Your task to perform on an android device: Open maps Image 0: 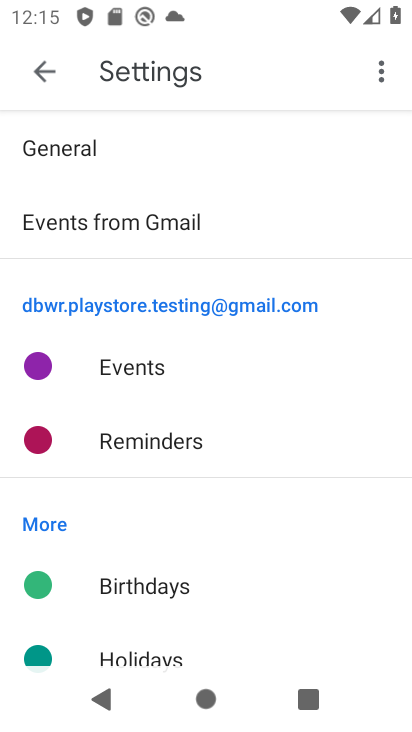
Step 0: press home button
Your task to perform on an android device: Open maps Image 1: 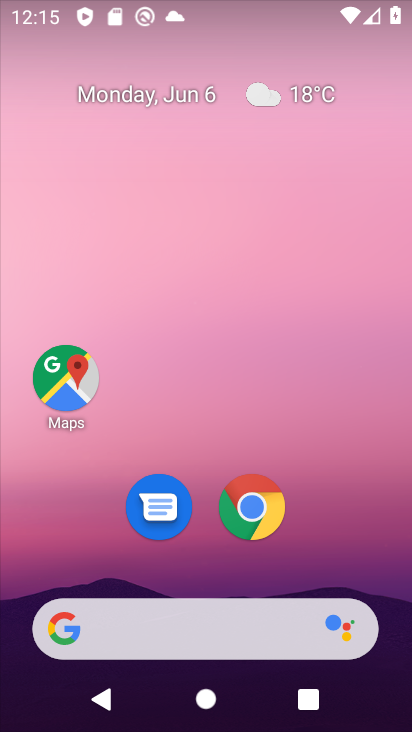
Step 1: click (85, 375)
Your task to perform on an android device: Open maps Image 2: 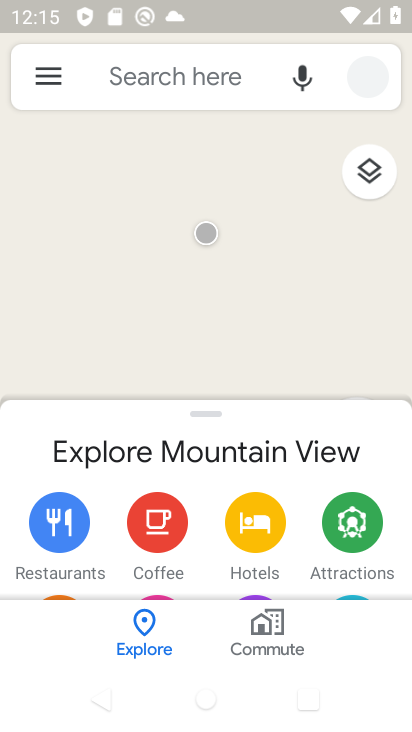
Step 2: task complete